Your task to perform on an android device: Go to sound settings Image 0: 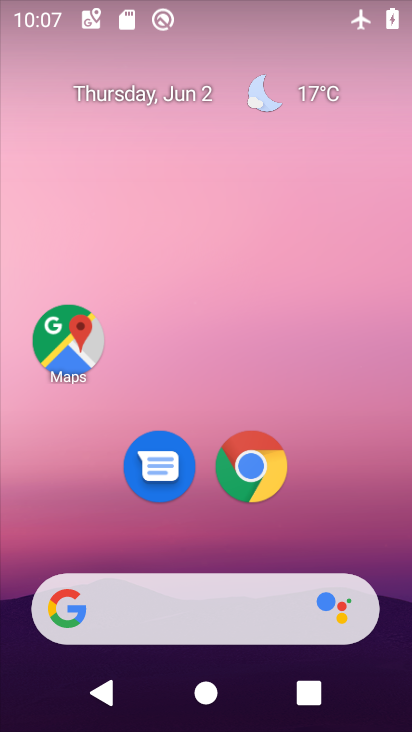
Step 0: drag from (271, 511) to (330, 100)
Your task to perform on an android device: Go to sound settings Image 1: 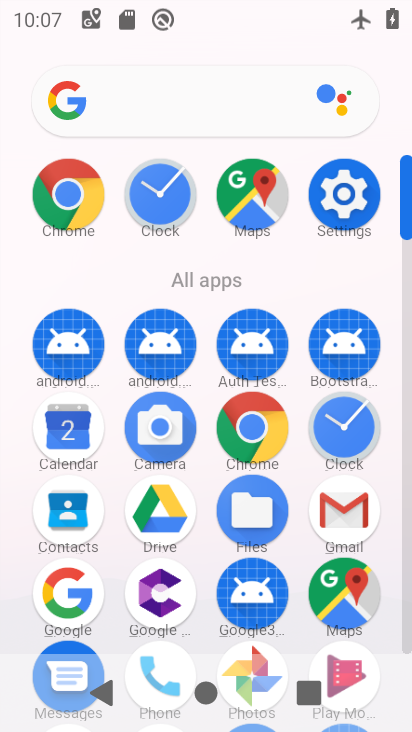
Step 1: click (336, 190)
Your task to perform on an android device: Go to sound settings Image 2: 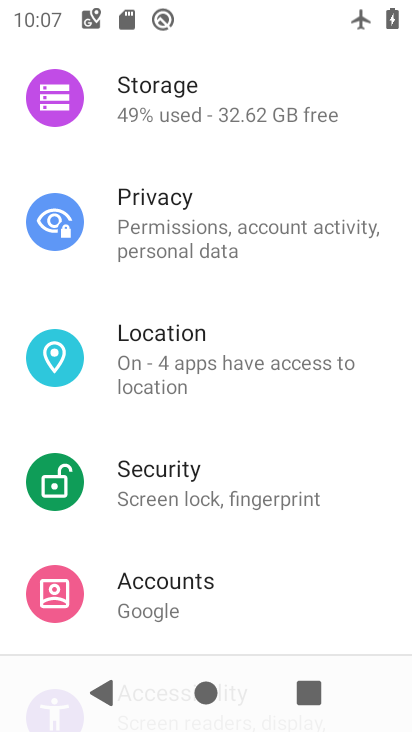
Step 2: drag from (244, 170) to (268, 540)
Your task to perform on an android device: Go to sound settings Image 3: 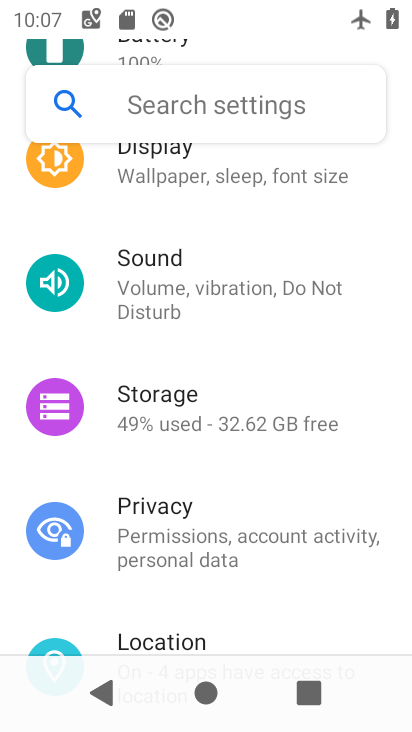
Step 3: click (174, 283)
Your task to perform on an android device: Go to sound settings Image 4: 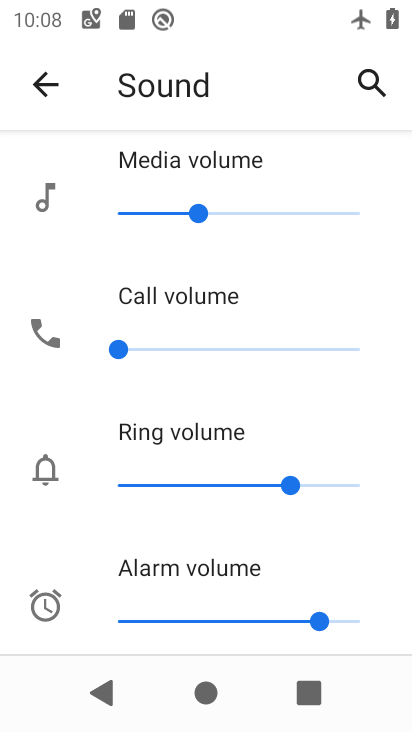
Step 4: task complete